Your task to perform on an android device: Go to accessibility settings Image 0: 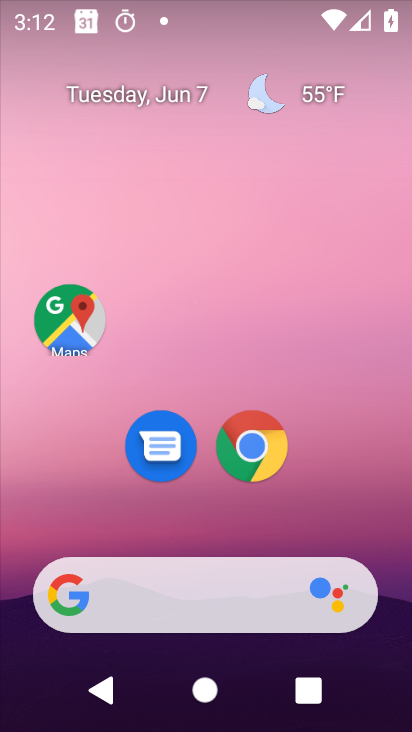
Step 0: drag from (203, 502) to (276, 98)
Your task to perform on an android device: Go to accessibility settings Image 1: 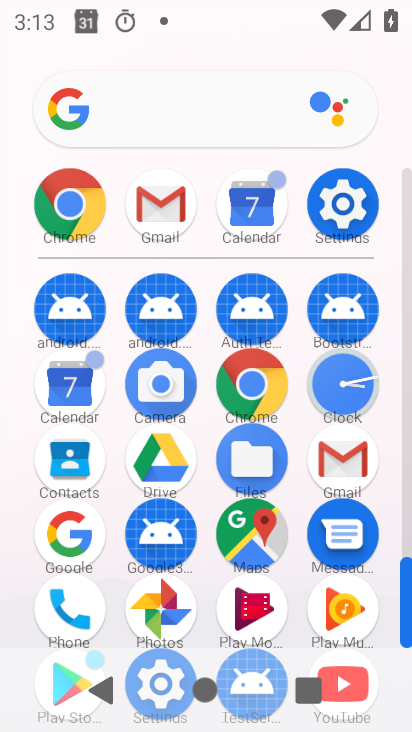
Step 1: click (361, 202)
Your task to perform on an android device: Go to accessibility settings Image 2: 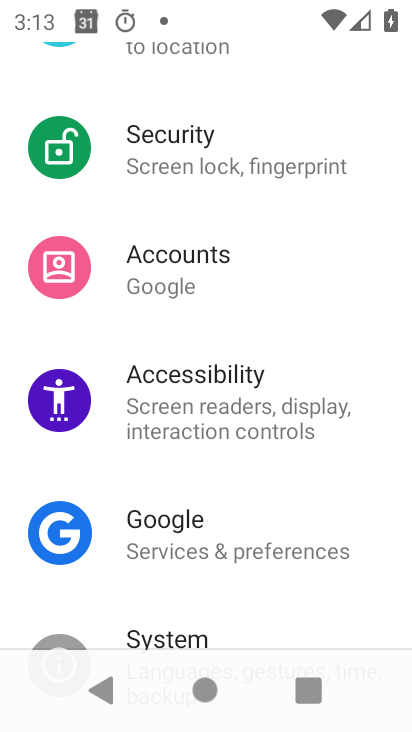
Step 2: click (230, 380)
Your task to perform on an android device: Go to accessibility settings Image 3: 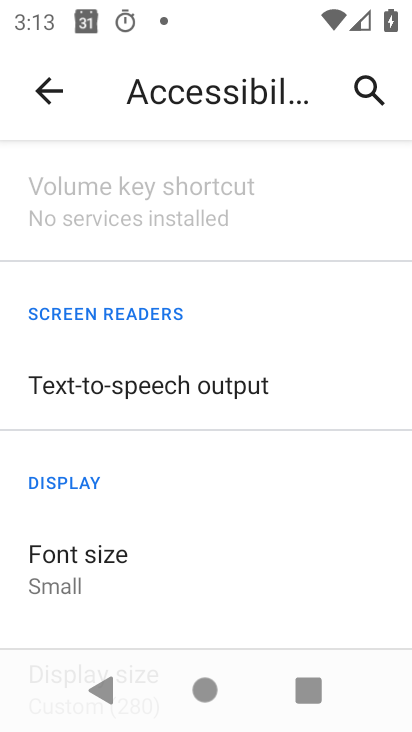
Step 3: task complete